Your task to perform on an android device: What's the weather? Image 0: 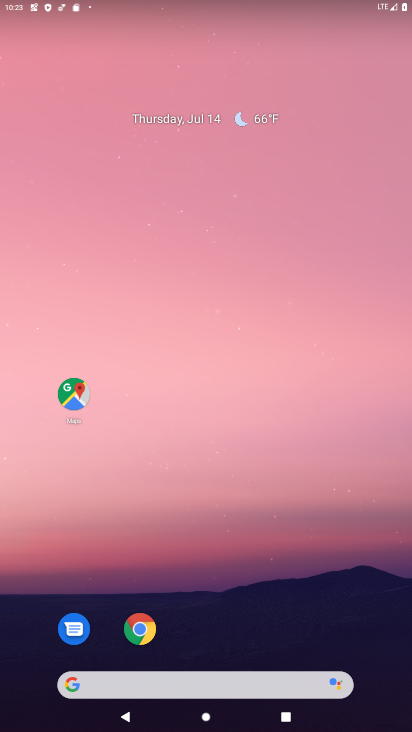
Step 0: click (169, 681)
Your task to perform on an android device: What's the weather? Image 1: 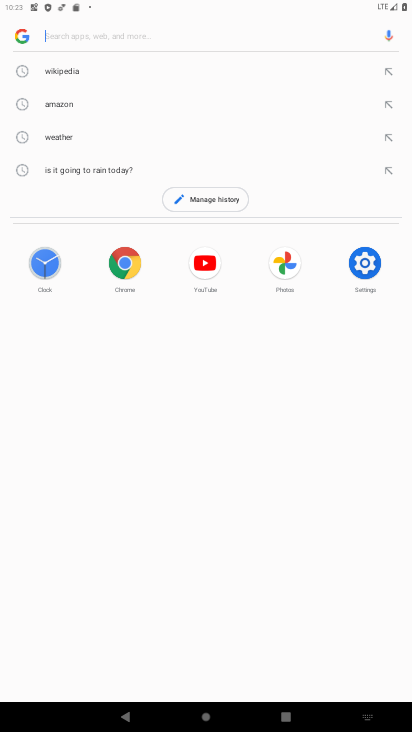
Step 1: type "What's the weather?"
Your task to perform on an android device: What's the weather? Image 2: 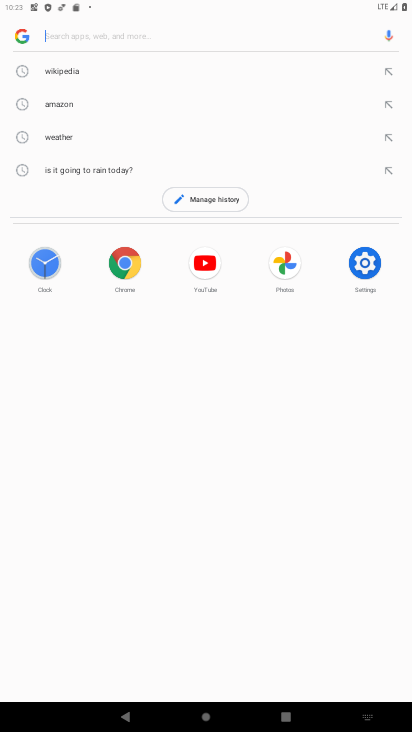
Step 2: click (174, 26)
Your task to perform on an android device: What's the weather? Image 3: 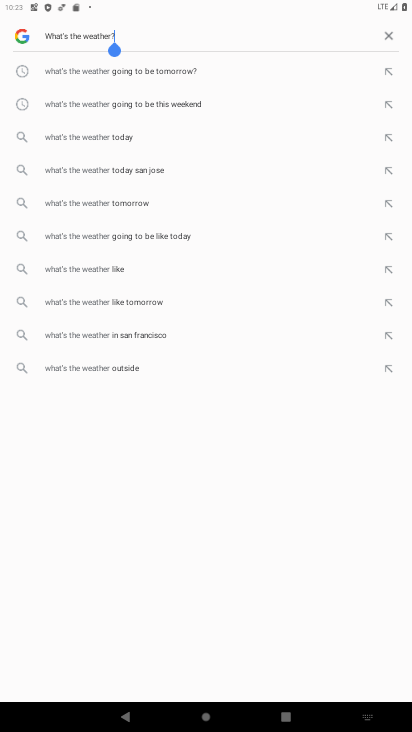
Step 3: press enter
Your task to perform on an android device: What's the weather? Image 4: 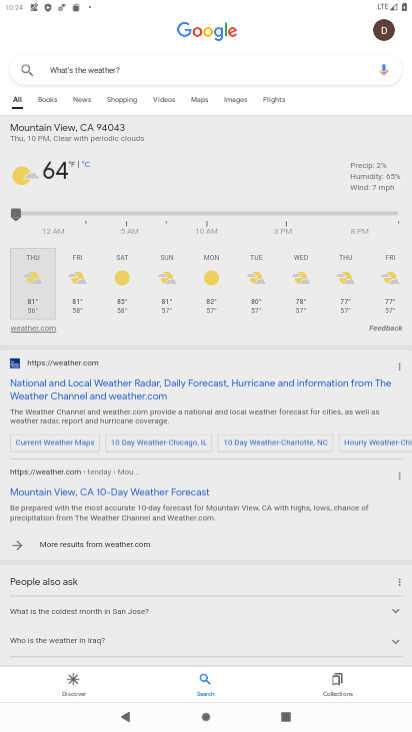
Step 4: task complete